Your task to perform on an android device: allow notifications from all sites in the chrome app Image 0: 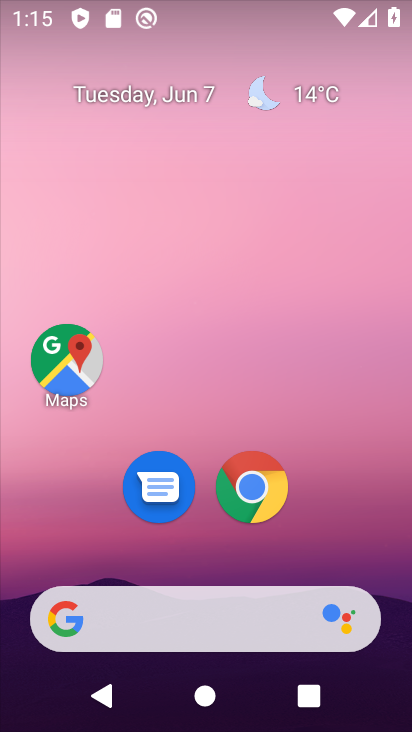
Step 0: click (264, 485)
Your task to perform on an android device: allow notifications from all sites in the chrome app Image 1: 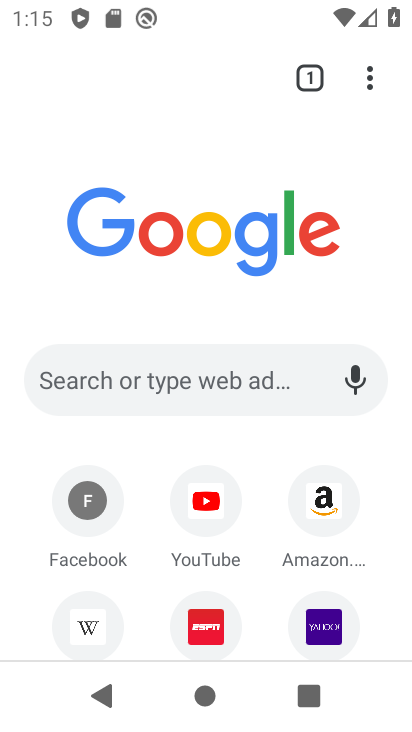
Step 1: click (372, 77)
Your task to perform on an android device: allow notifications from all sites in the chrome app Image 2: 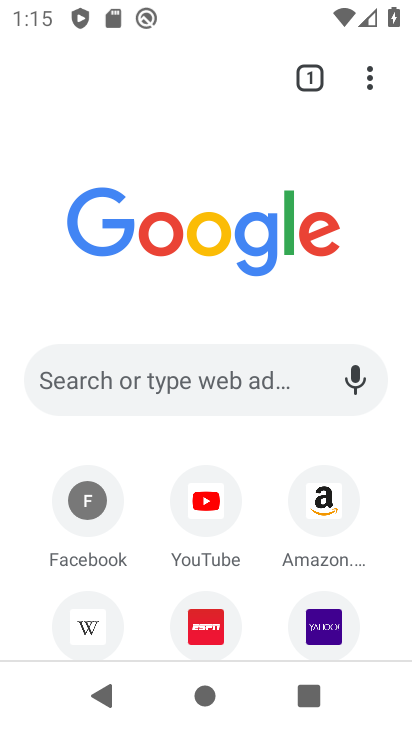
Step 2: drag from (374, 95) to (140, 551)
Your task to perform on an android device: allow notifications from all sites in the chrome app Image 3: 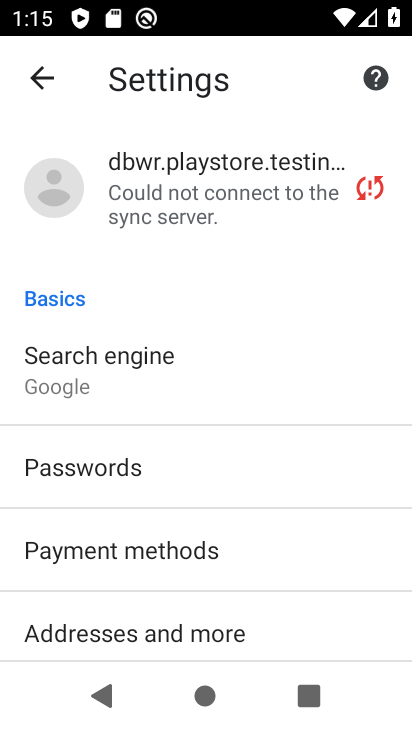
Step 3: drag from (166, 555) to (147, 20)
Your task to perform on an android device: allow notifications from all sites in the chrome app Image 4: 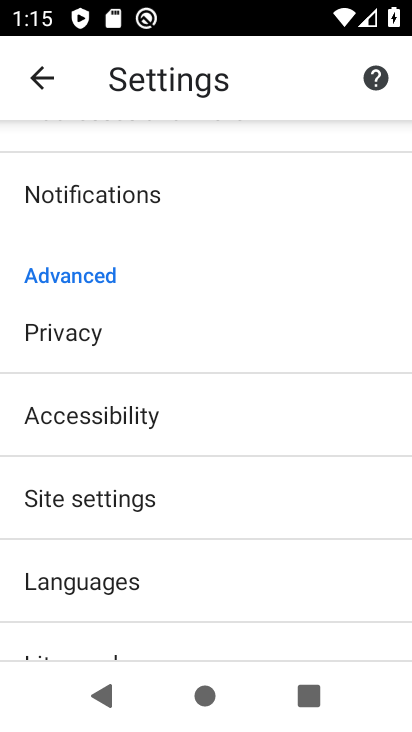
Step 4: drag from (161, 263) to (161, 92)
Your task to perform on an android device: allow notifications from all sites in the chrome app Image 5: 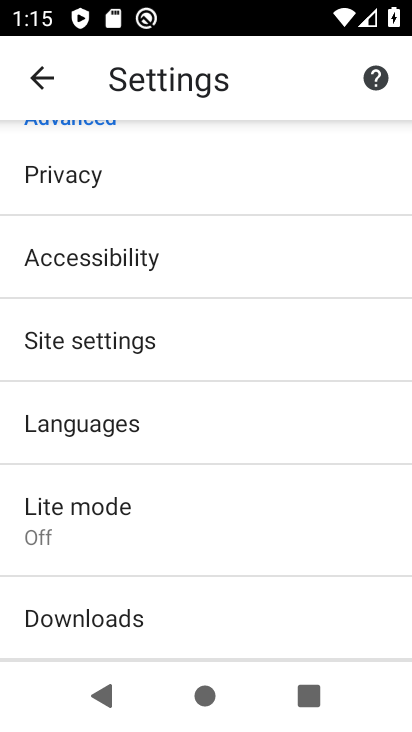
Step 5: click (139, 353)
Your task to perform on an android device: allow notifications from all sites in the chrome app Image 6: 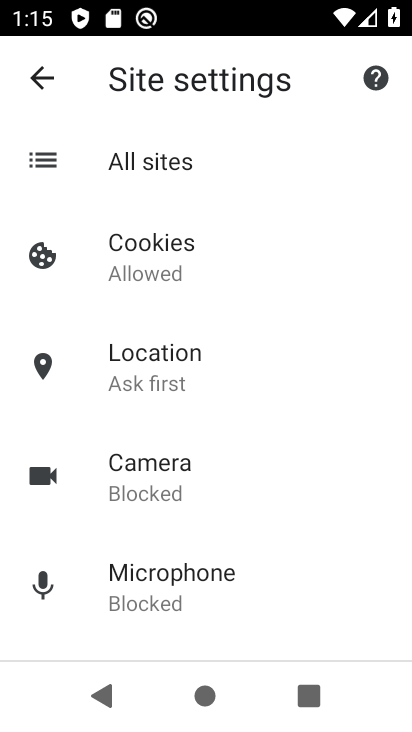
Step 6: drag from (187, 382) to (154, 17)
Your task to perform on an android device: allow notifications from all sites in the chrome app Image 7: 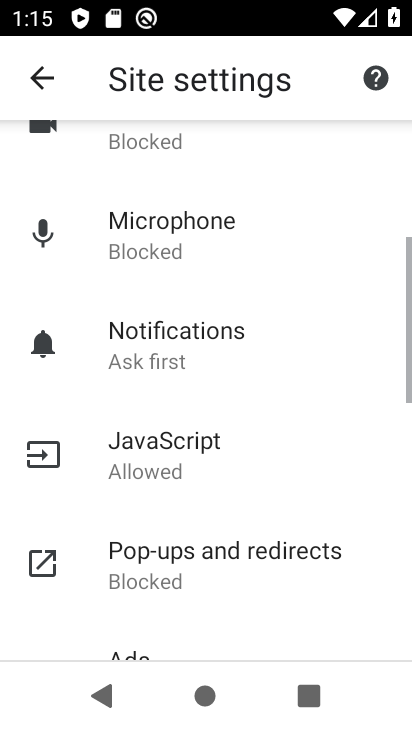
Step 7: click (205, 344)
Your task to perform on an android device: allow notifications from all sites in the chrome app Image 8: 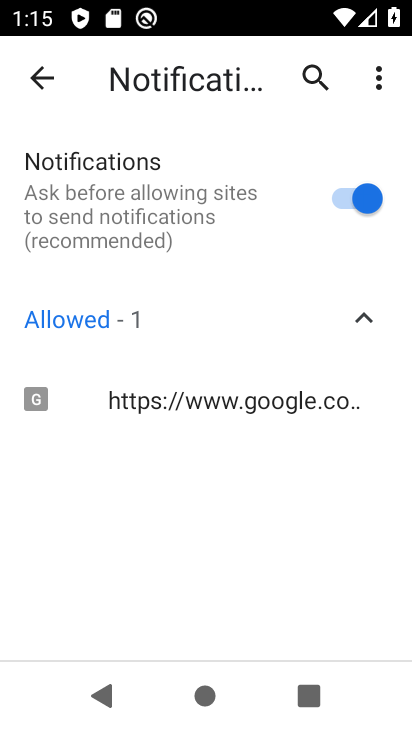
Step 8: task complete